Your task to perform on an android device: find photos in the google photos app Image 0: 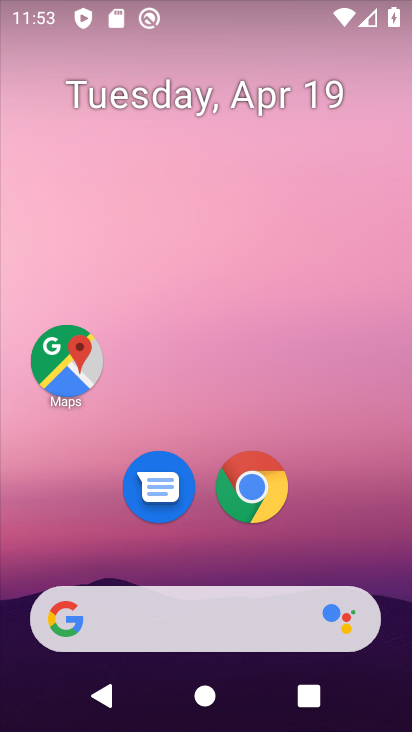
Step 0: drag from (354, 498) to (227, 88)
Your task to perform on an android device: find photos in the google photos app Image 1: 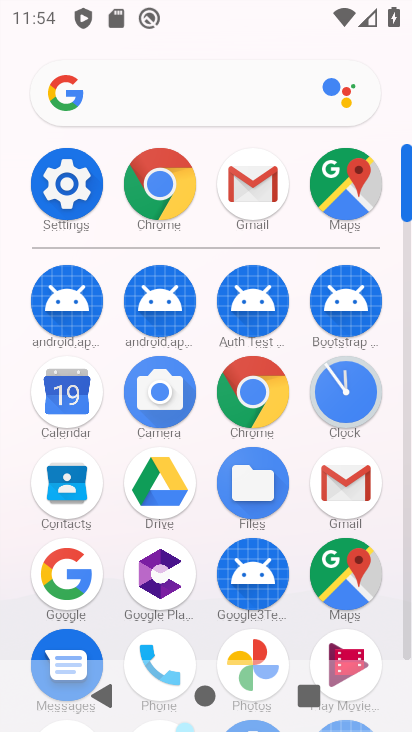
Step 1: click (249, 647)
Your task to perform on an android device: find photos in the google photos app Image 2: 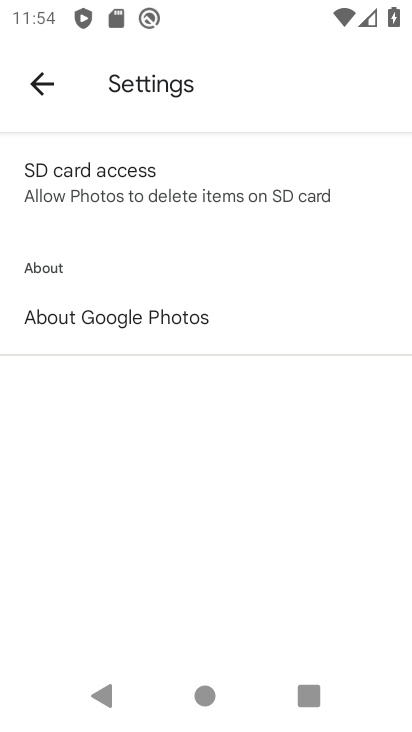
Step 2: click (58, 94)
Your task to perform on an android device: find photos in the google photos app Image 3: 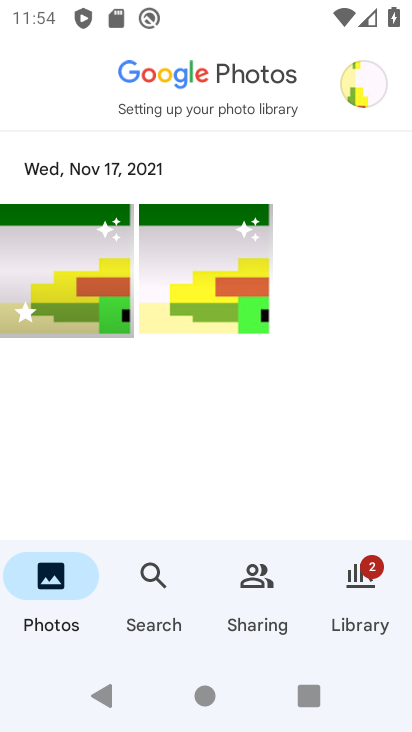
Step 3: task complete